Your task to perform on an android device: Turn off the flashlight Image 0: 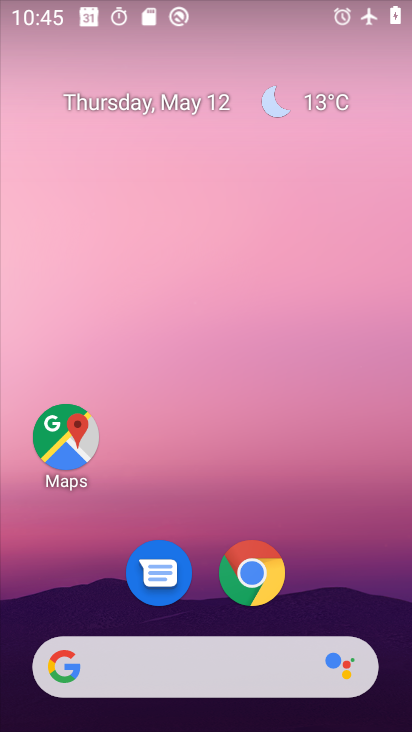
Step 0: click (400, 659)
Your task to perform on an android device: Turn off the flashlight Image 1: 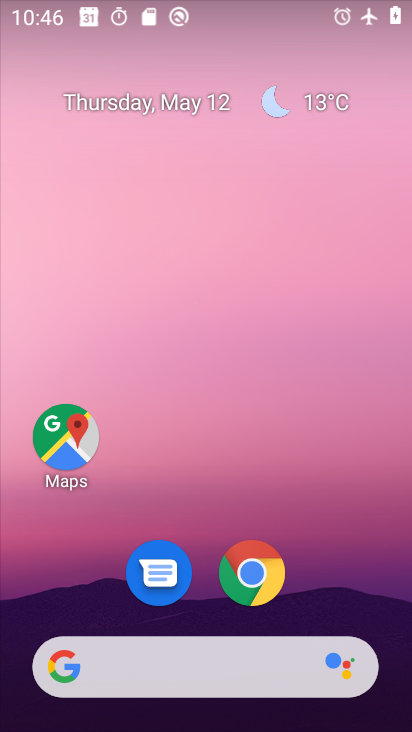
Step 1: drag from (394, 641) to (411, 135)
Your task to perform on an android device: Turn off the flashlight Image 2: 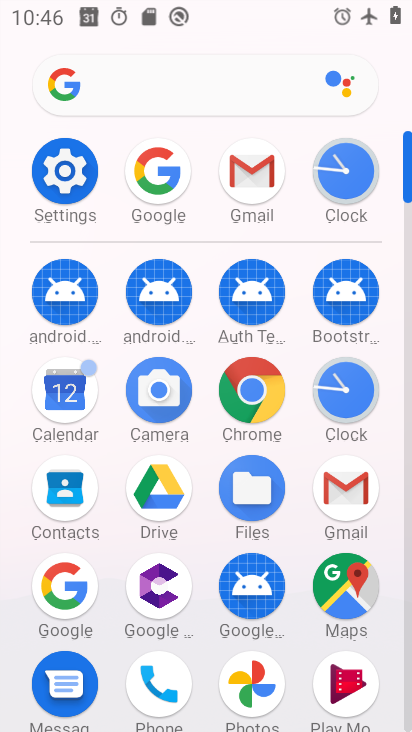
Step 2: click (50, 182)
Your task to perform on an android device: Turn off the flashlight Image 3: 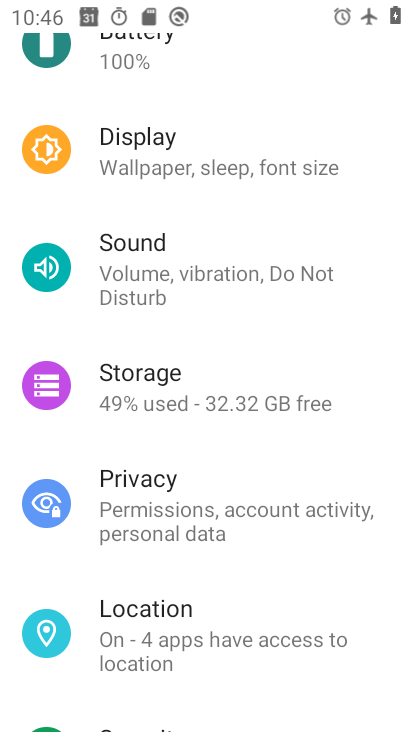
Step 3: click (177, 154)
Your task to perform on an android device: Turn off the flashlight Image 4: 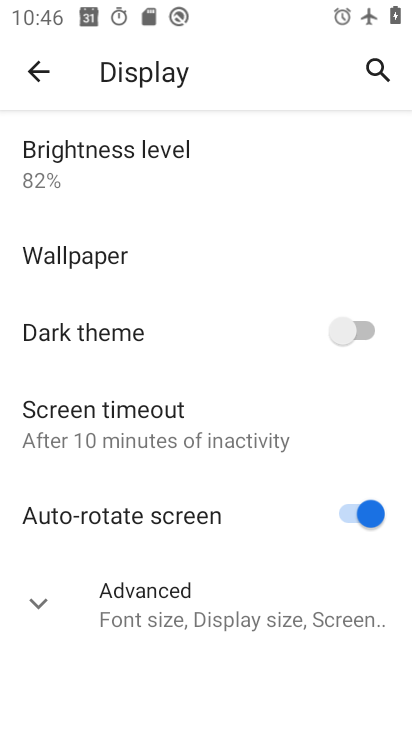
Step 4: task complete